Your task to perform on an android device: Find coffee shops on Maps Image 0: 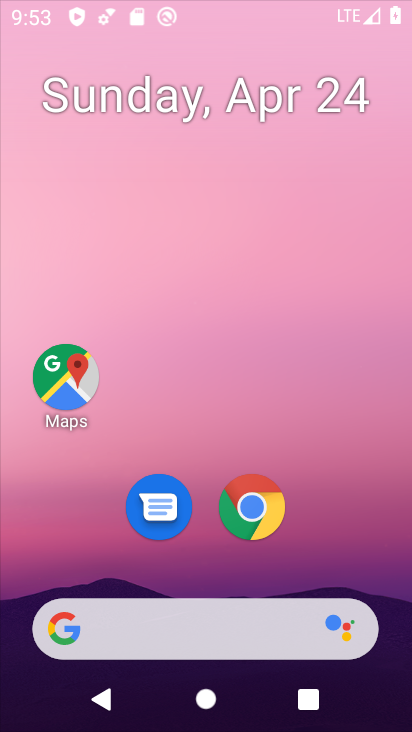
Step 0: click (180, 121)
Your task to perform on an android device: Find coffee shops on Maps Image 1: 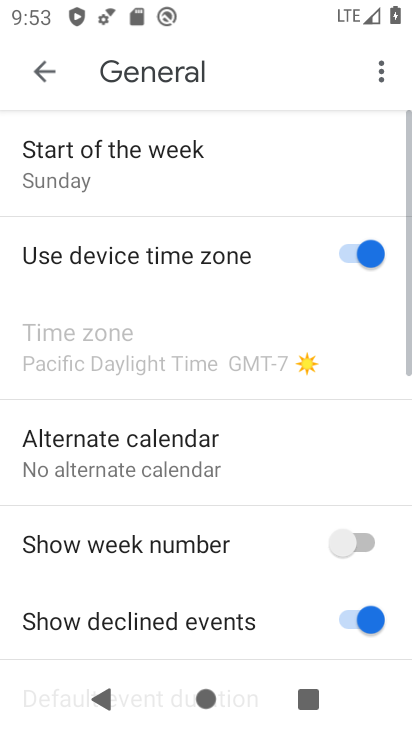
Step 1: press home button
Your task to perform on an android device: Find coffee shops on Maps Image 2: 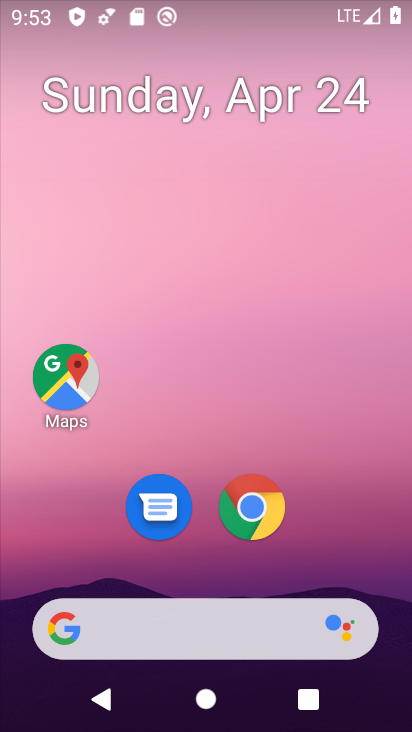
Step 2: click (63, 383)
Your task to perform on an android device: Find coffee shops on Maps Image 3: 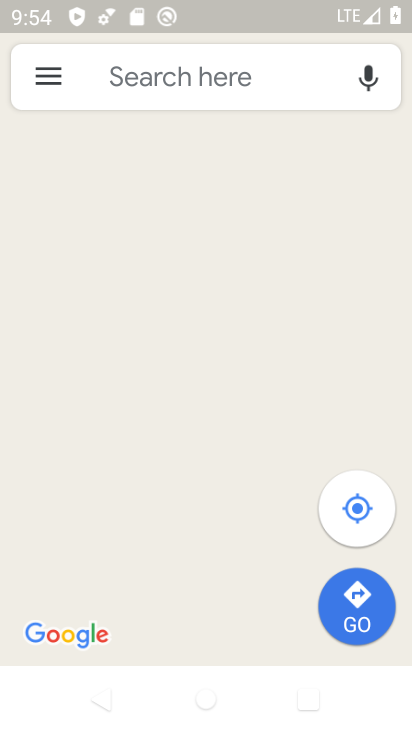
Step 3: click (179, 92)
Your task to perform on an android device: Find coffee shops on Maps Image 4: 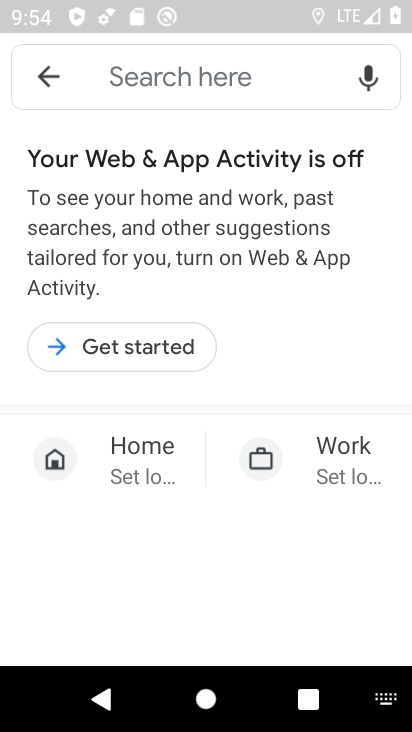
Step 4: type "coffee shops"
Your task to perform on an android device: Find coffee shops on Maps Image 5: 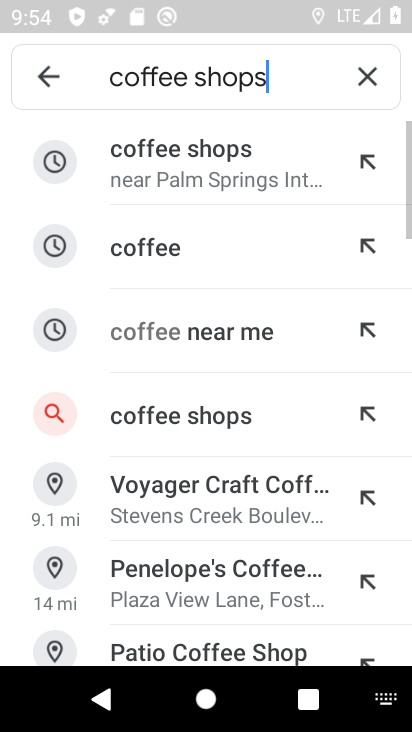
Step 5: click (268, 172)
Your task to perform on an android device: Find coffee shops on Maps Image 6: 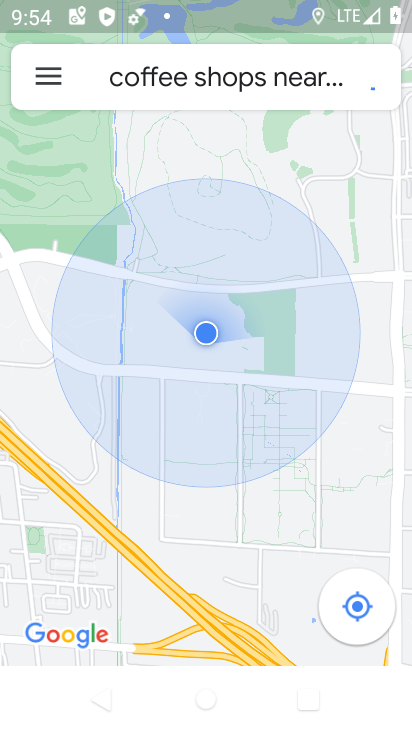
Step 6: task complete